Your task to perform on an android device: When is my next meeting? Image 0: 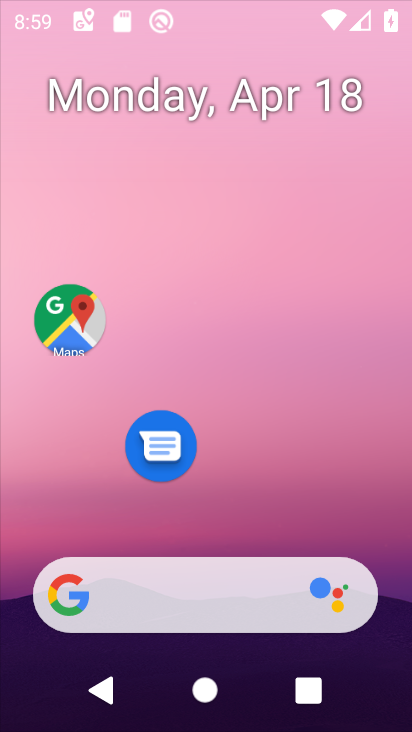
Step 0: press home button
Your task to perform on an android device: When is my next meeting? Image 1: 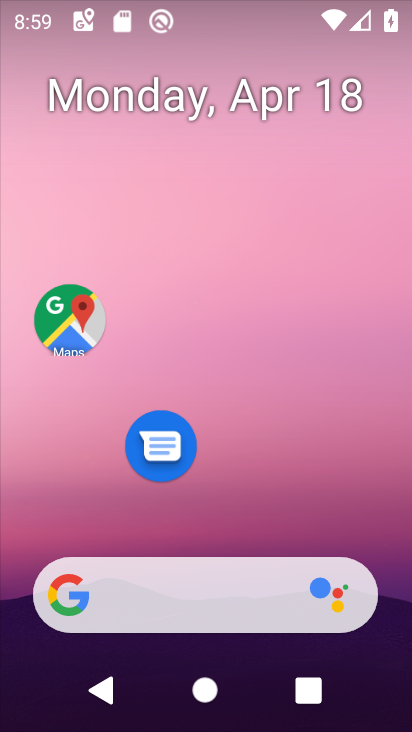
Step 1: drag from (227, 477) to (259, 231)
Your task to perform on an android device: When is my next meeting? Image 2: 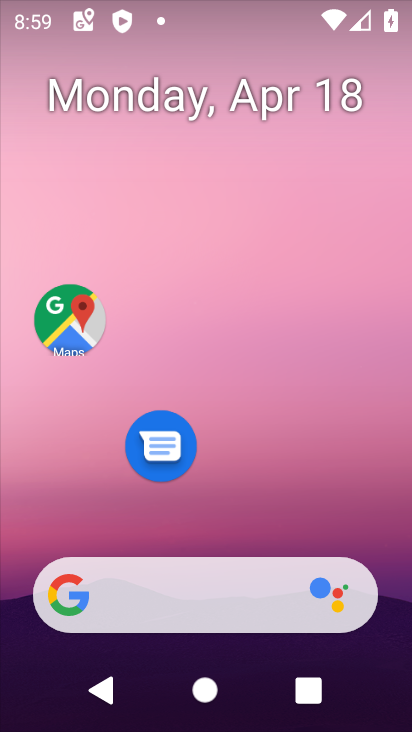
Step 2: drag from (236, 516) to (278, 100)
Your task to perform on an android device: When is my next meeting? Image 3: 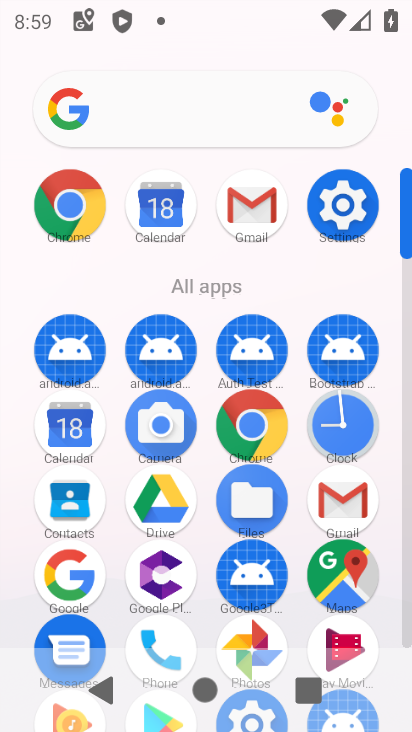
Step 3: click (72, 422)
Your task to perform on an android device: When is my next meeting? Image 4: 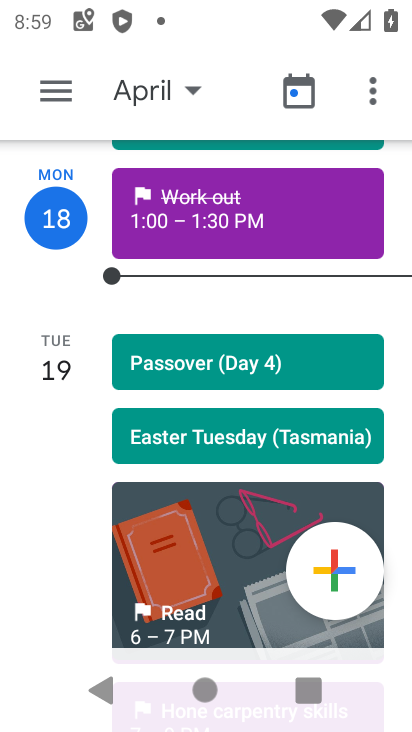
Step 4: click (71, 531)
Your task to perform on an android device: When is my next meeting? Image 5: 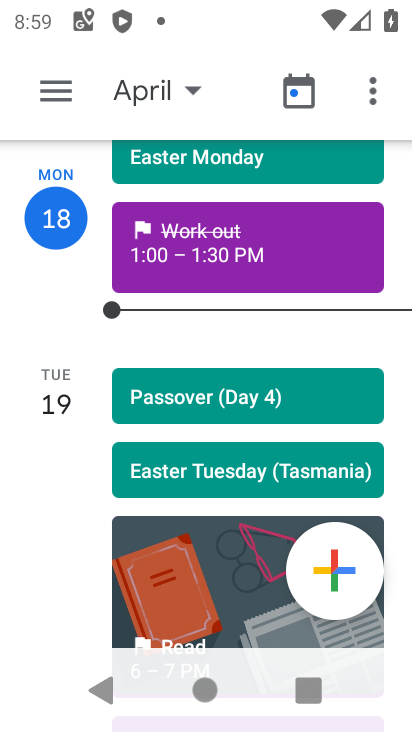
Step 5: click (68, 296)
Your task to perform on an android device: When is my next meeting? Image 6: 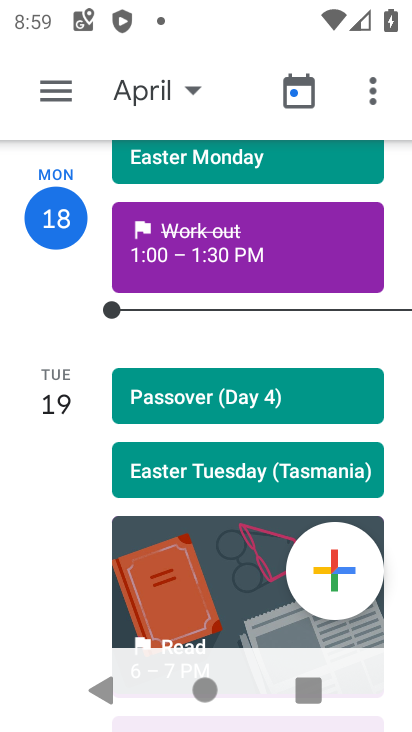
Step 6: click (63, 78)
Your task to perform on an android device: When is my next meeting? Image 7: 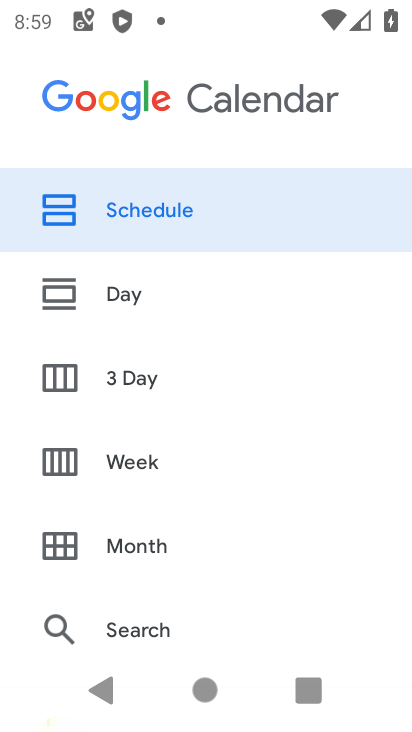
Step 7: click (102, 310)
Your task to perform on an android device: When is my next meeting? Image 8: 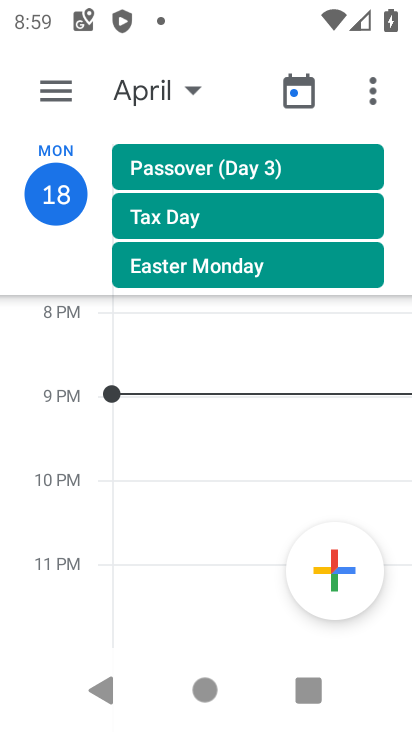
Step 8: drag from (73, 479) to (107, 184)
Your task to perform on an android device: When is my next meeting? Image 9: 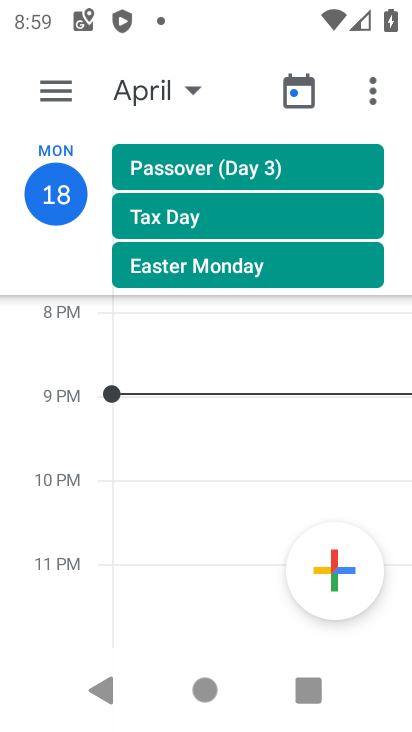
Step 9: drag from (62, 549) to (128, 95)
Your task to perform on an android device: When is my next meeting? Image 10: 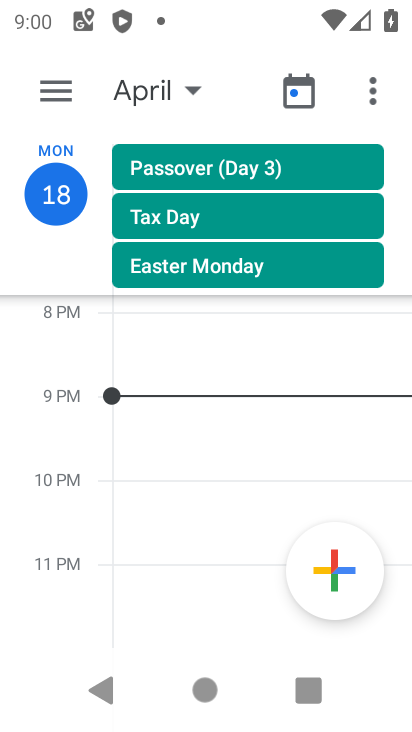
Step 10: drag from (88, 490) to (134, 149)
Your task to perform on an android device: When is my next meeting? Image 11: 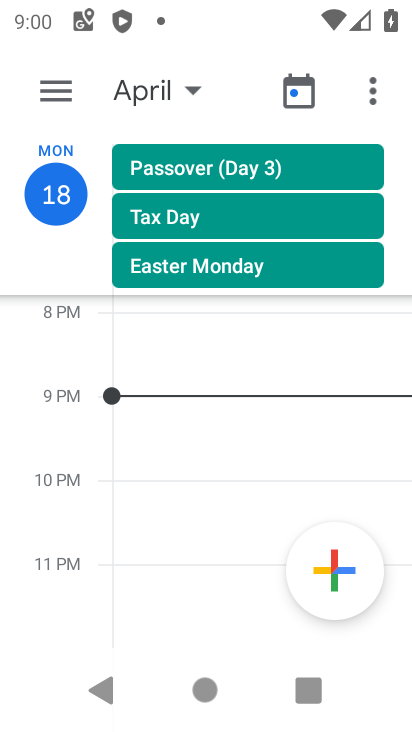
Step 11: click (89, 241)
Your task to perform on an android device: When is my next meeting? Image 12: 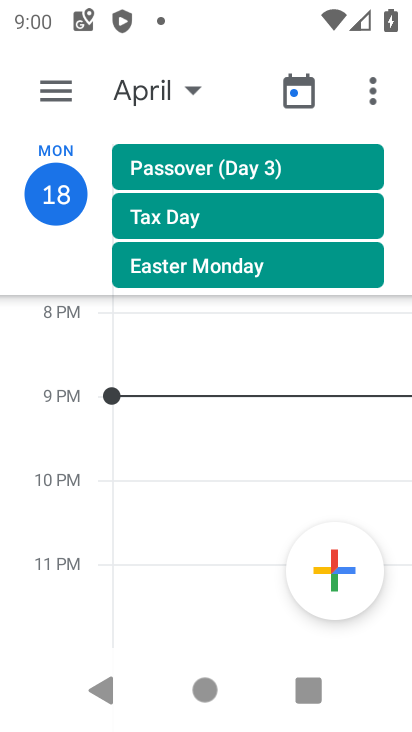
Step 12: click (64, 92)
Your task to perform on an android device: When is my next meeting? Image 13: 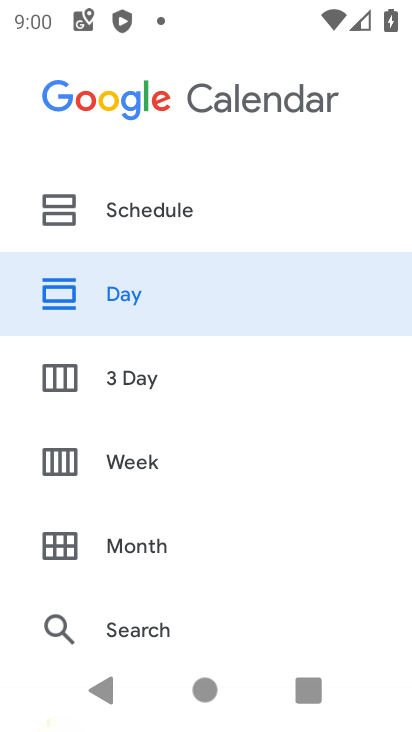
Step 13: click (93, 464)
Your task to perform on an android device: When is my next meeting? Image 14: 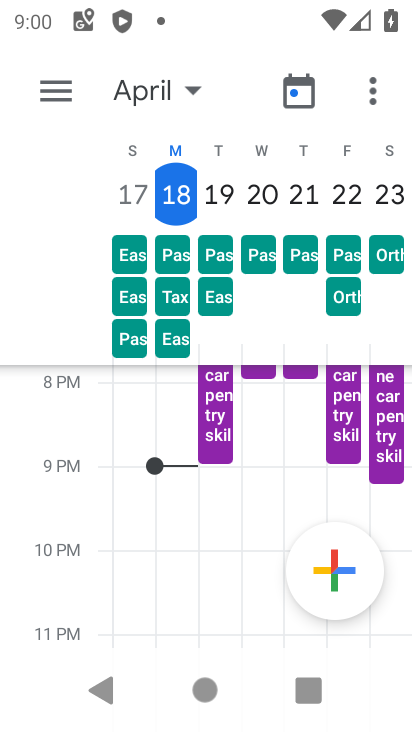
Step 14: click (172, 192)
Your task to perform on an android device: When is my next meeting? Image 15: 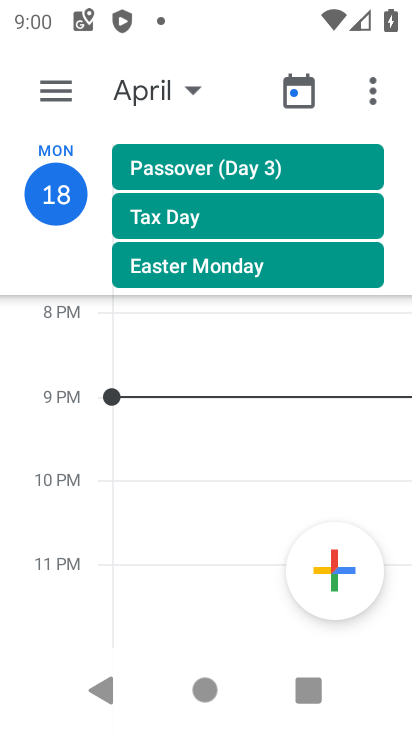
Step 15: click (80, 232)
Your task to perform on an android device: When is my next meeting? Image 16: 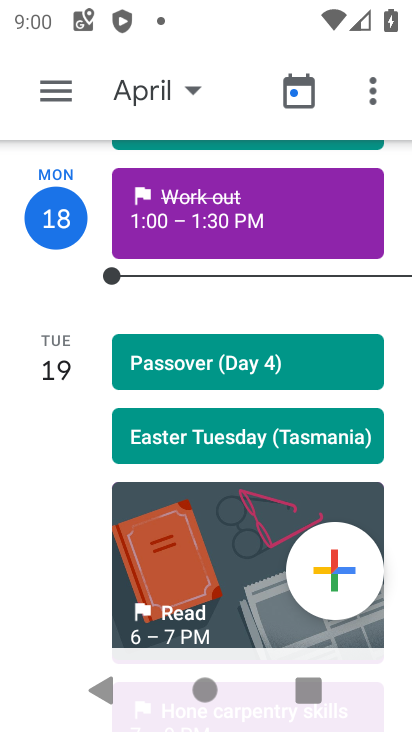
Step 16: drag from (88, 449) to (138, 194)
Your task to perform on an android device: When is my next meeting? Image 17: 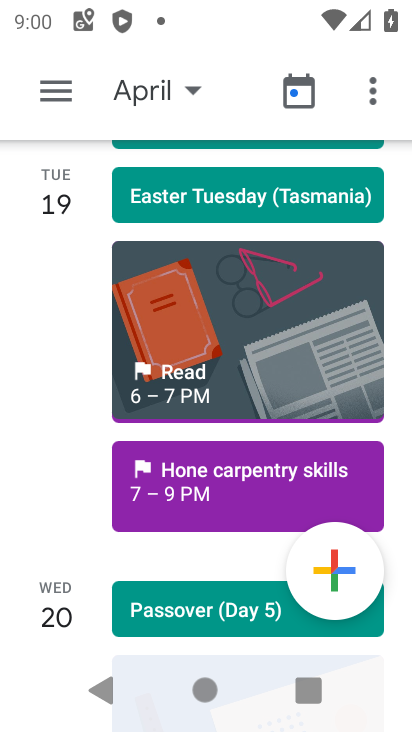
Step 17: click (78, 478)
Your task to perform on an android device: When is my next meeting? Image 18: 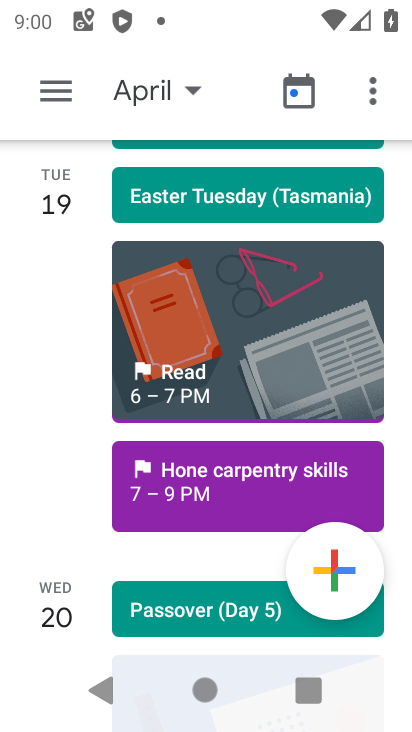
Step 18: task complete